Your task to perform on an android device: turn on data saver in the chrome app Image 0: 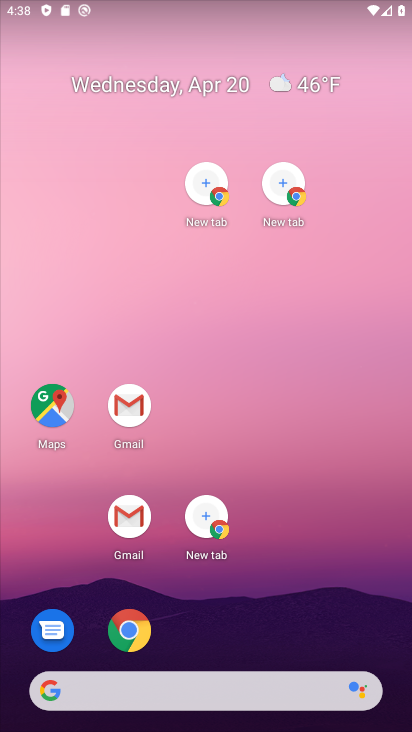
Step 0: drag from (8, 199) to (70, 141)
Your task to perform on an android device: turn on data saver in the chrome app Image 1: 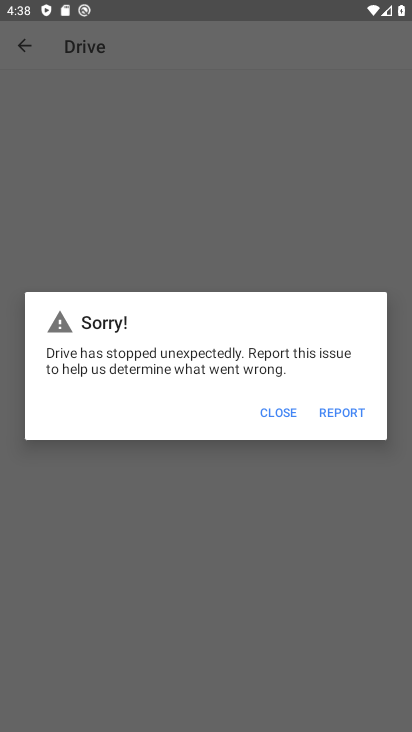
Step 1: drag from (301, 353) to (138, 2)
Your task to perform on an android device: turn on data saver in the chrome app Image 2: 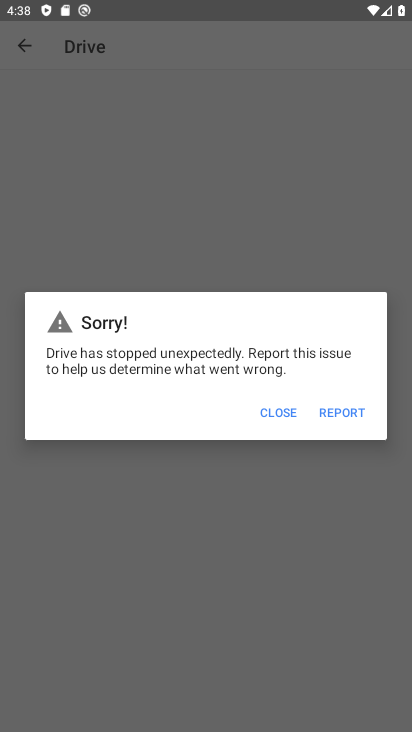
Step 2: click (288, 407)
Your task to perform on an android device: turn on data saver in the chrome app Image 3: 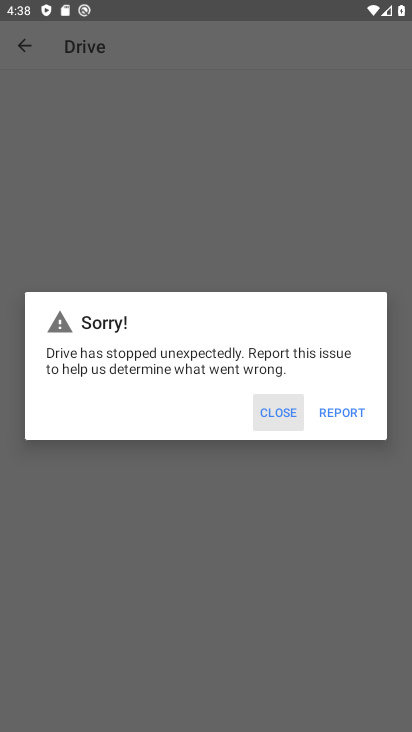
Step 3: click (288, 407)
Your task to perform on an android device: turn on data saver in the chrome app Image 4: 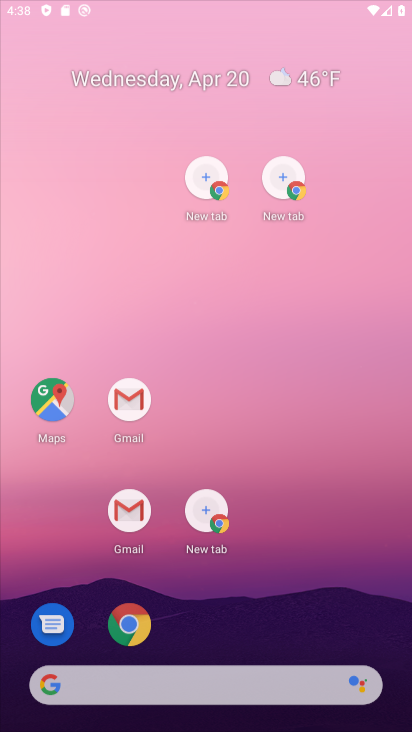
Step 4: click (288, 407)
Your task to perform on an android device: turn on data saver in the chrome app Image 5: 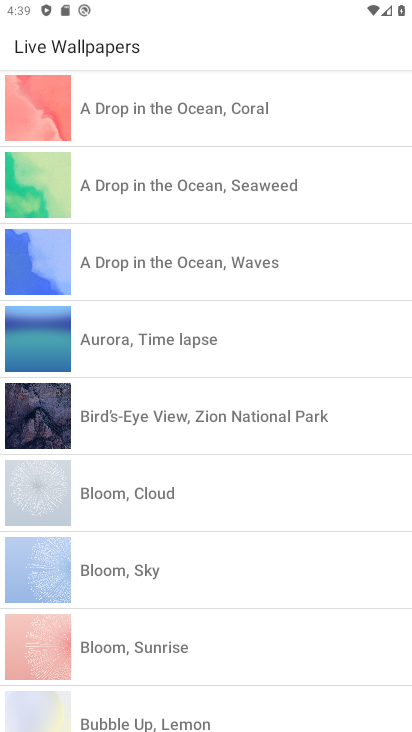
Step 5: press home button
Your task to perform on an android device: turn on data saver in the chrome app Image 6: 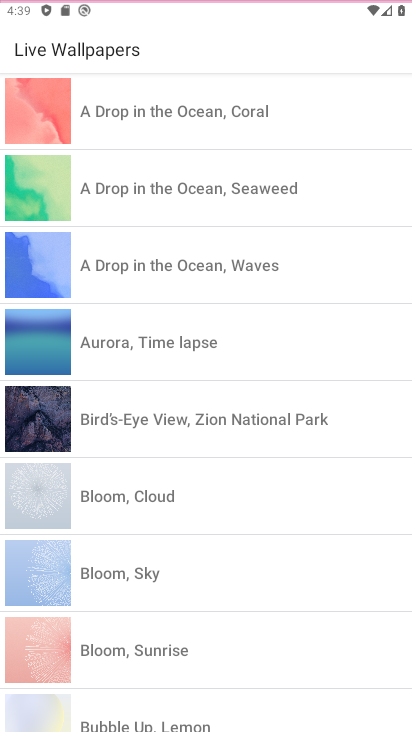
Step 6: press home button
Your task to perform on an android device: turn on data saver in the chrome app Image 7: 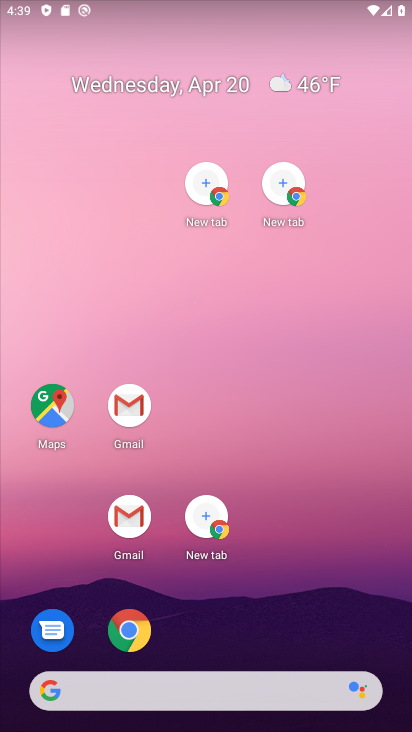
Step 7: drag from (205, 428) to (162, 107)
Your task to perform on an android device: turn on data saver in the chrome app Image 8: 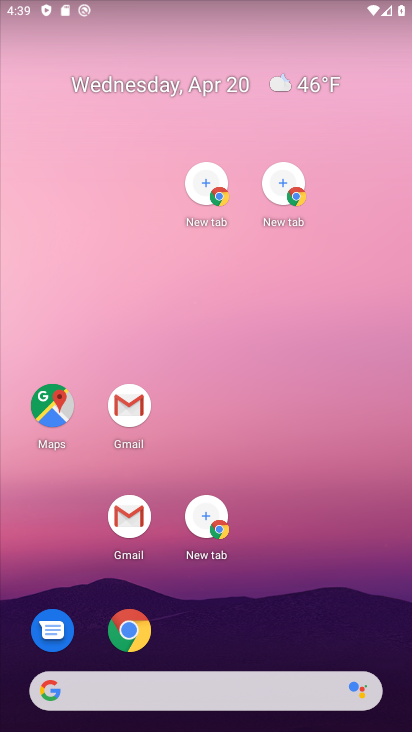
Step 8: drag from (196, 66) to (74, 72)
Your task to perform on an android device: turn on data saver in the chrome app Image 9: 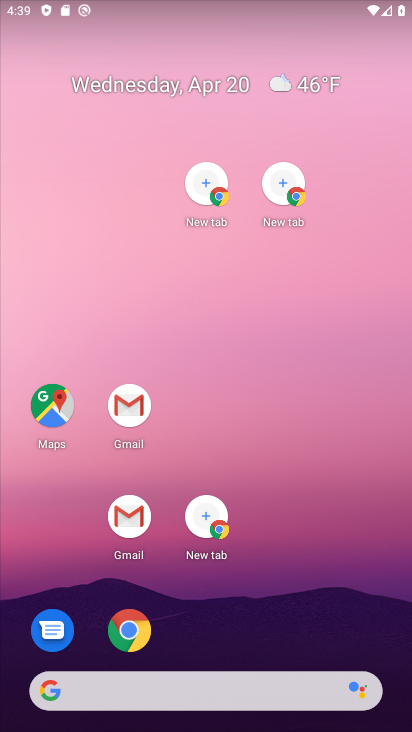
Step 9: drag from (224, 376) to (176, 166)
Your task to perform on an android device: turn on data saver in the chrome app Image 10: 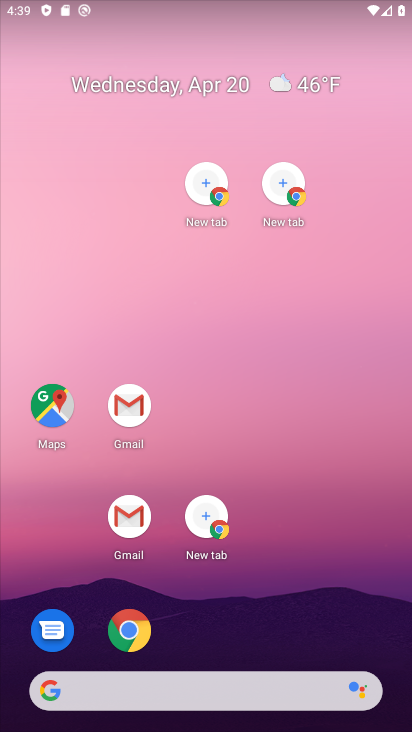
Step 10: drag from (162, 220) to (107, 111)
Your task to perform on an android device: turn on data saver in the chrome app Image 11: 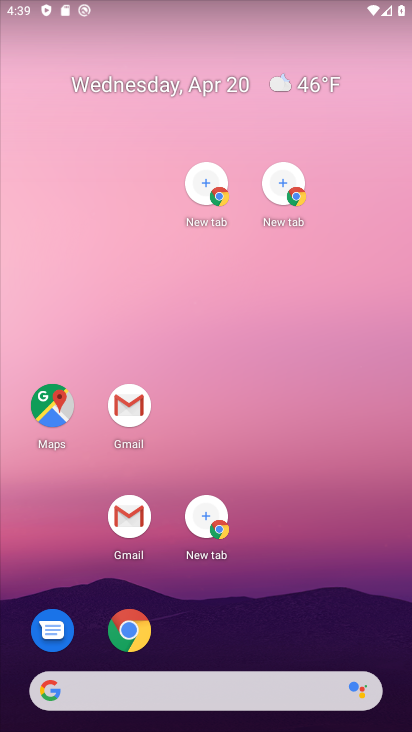
Step 11: drag from (249, 556) to (44, 141)
Your task to perform on an android device: turn on data saver in the chrome app Image 12: 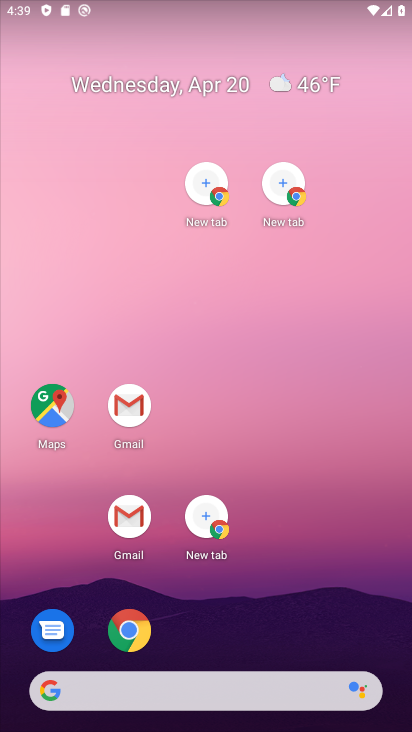
Step 12: drag from (152, 208) to (178, 124)
Your task to perform on an android device: turn on data saver in the chrome app Image 13: 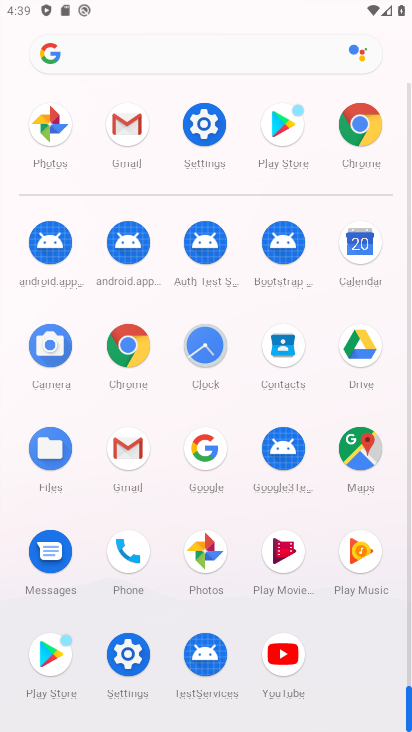
Step 13: click (121, 343)
Your task to perform on an android device: turn on data saver in the chrome app Image 14: 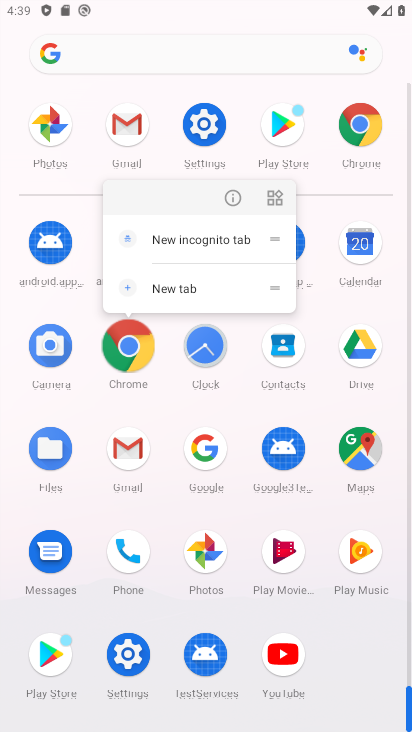
Step 14: click (117, 337)
Your task to perform on an android device: turn on data saver in the chrome app Image 15: 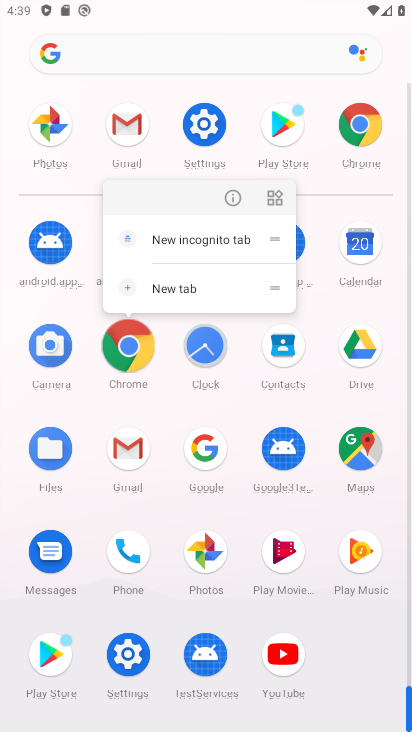
Step 15: click (116, 337)
Your task to perform on an android device: turn on data saver in the chrome app Image 16: 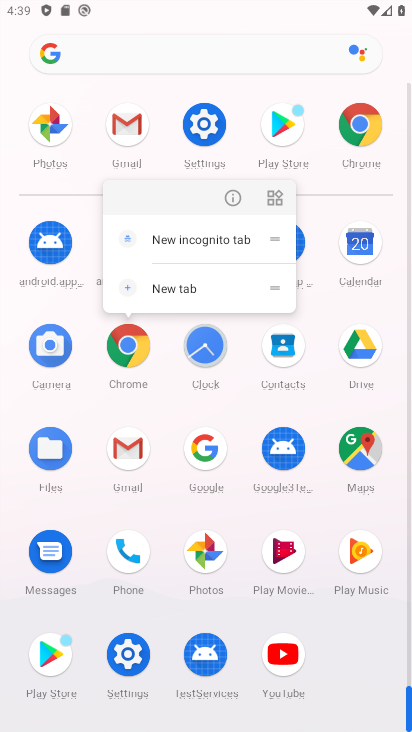
Step 16: click (116, 337)
Your task to perform on an android device: turn on data saver in the chrome app Image 17: 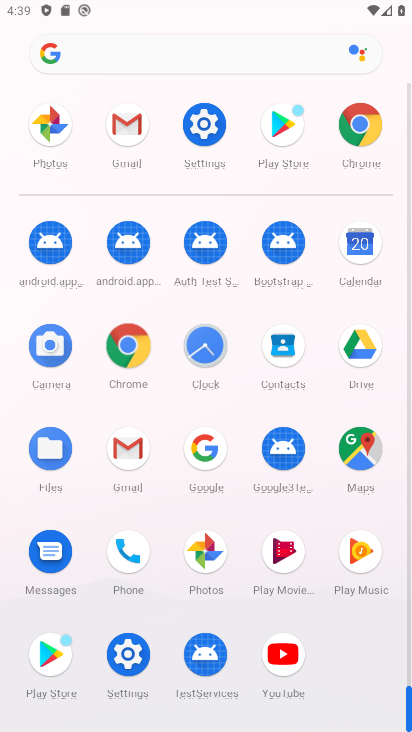
Step 17: click (116, 337)
Your task to perform on an android device: turn on data saver in the chrome app Image 18: 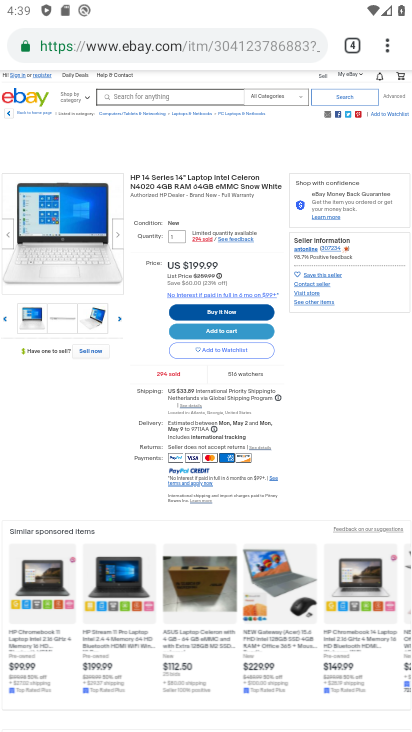
Step 18: drag from (383, 47) to (220, 589)
Your task to perform on an android device: turn on data saver in the chrome app Image 19: 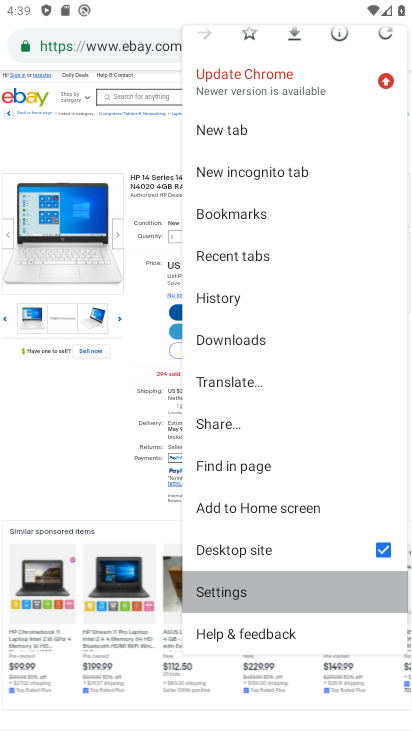
Step 19: click (217, 584)
Your task to perform on an android device: turn on data saver in the chrome app Image 20: 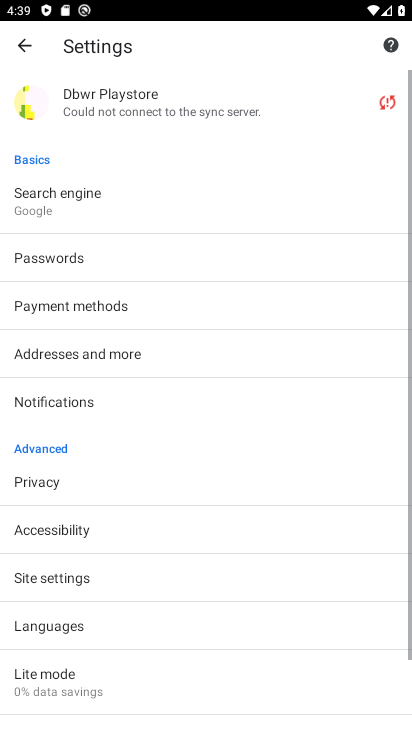
Step 20: drag from (113, 568) to (91, 154)
Your task to perform on an android device: turn on data saver in the chrome app Image 21: 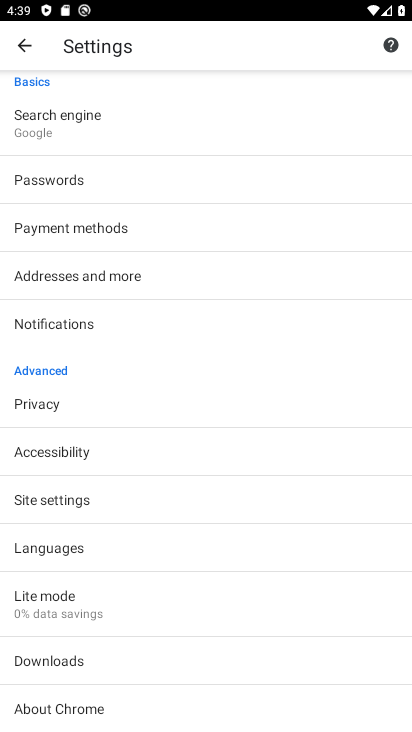
Step 21: click (44, 589)
Your task to perform on an android device: turn on data saver in the chrome app Image 22: 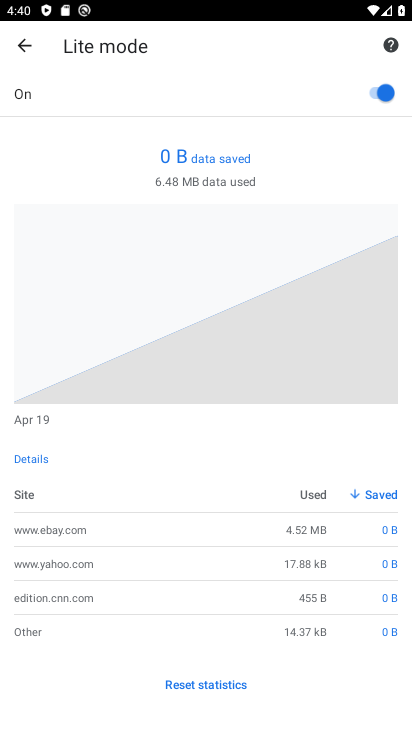
Step 22: click (390, 90)
Your task to perform on an android device: turn on data saver in the chrome app Image 23: 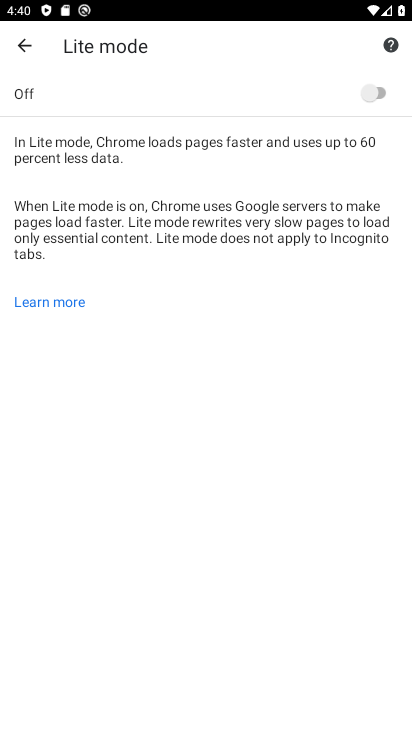
Step 23: click (372, 91)
Your task to perform on an android device: turn on data saver in the chrome app Image 24: 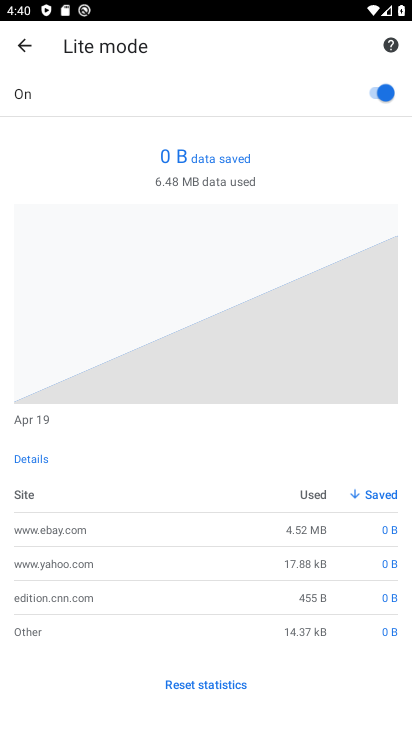
Step 24: task complete